Your task to perform on an android device: show emergency info Image 0: 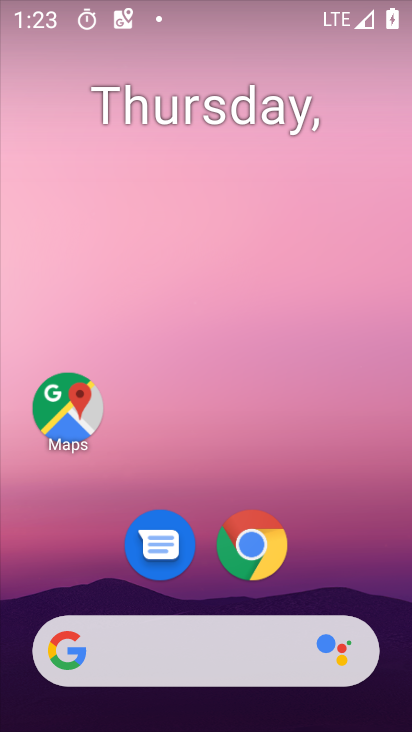
Step 0: drag from (281, 611) to (280, 76)
Your task to perform on an android device: show emergency info Image 1: 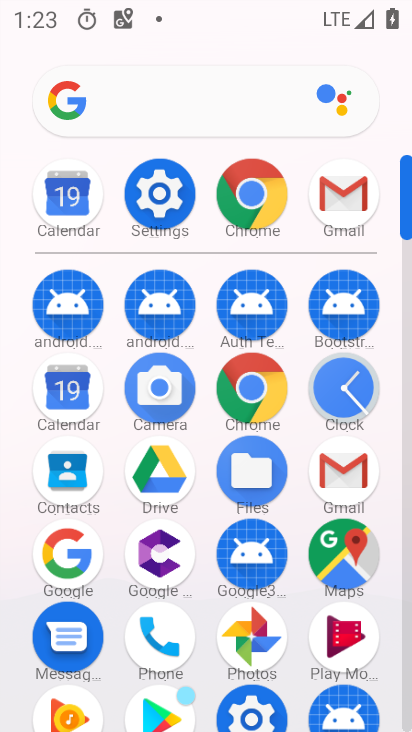
Step 1: click (182, 196)
Your task to perform on an android device: show emergency info Image 2: 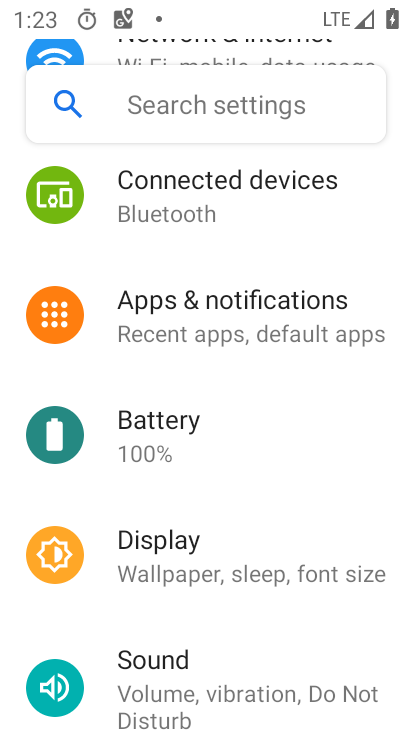
Step 2: drag from (288, 650) to (234, 158)
Your task to perform on an android device: show emergency info Image 3: 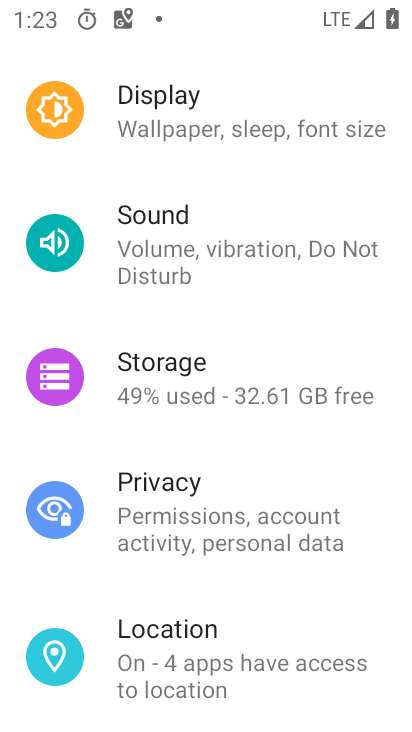
Step 3: drag from (279, 611) to (246, 270)
Your task to perform on an android device: show emergency info Image 4: 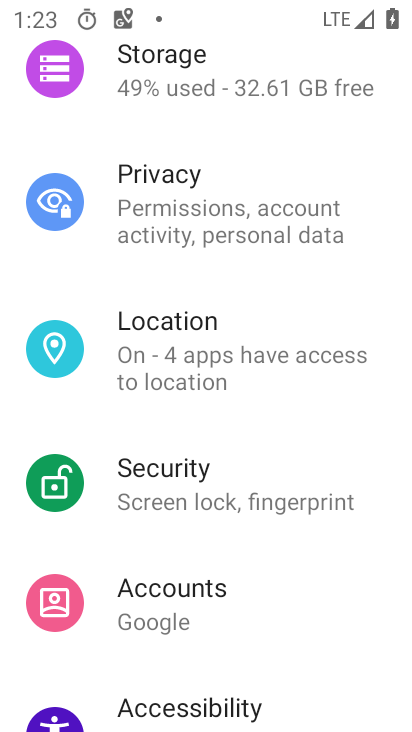
Step 4: drag from (250, 680) to (252, 330)
Your task to perform on an android device: show emergency info Image 5: 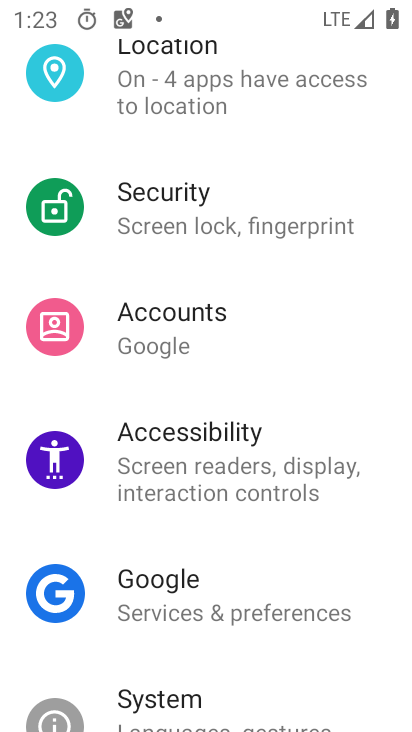
Step 5: drag from (280, 692) to (302, 169)
Your task to perform on an android device: show emergency info Image 6: 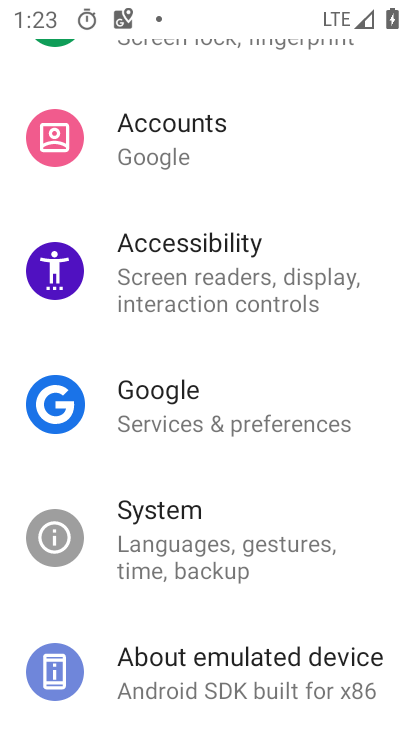
Step 6: drag from (296, 642) to (328, 192)
Your task to perform on an android device: show emergency info Image 7: 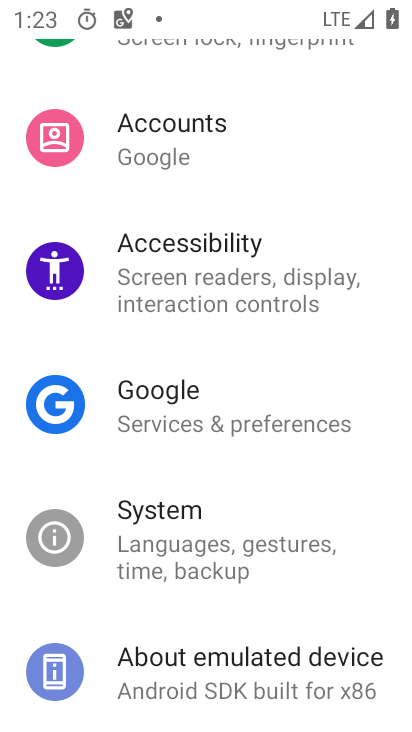
Step 7: click (303, 660)
Your task to perform on an android device: show emergency info Image 8: 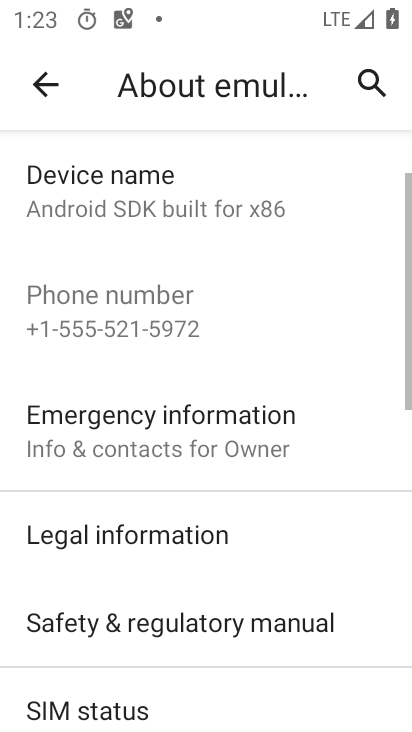
Step 8: click (240, 436)
Your task to perform on an android device: show emergency info Image 9: 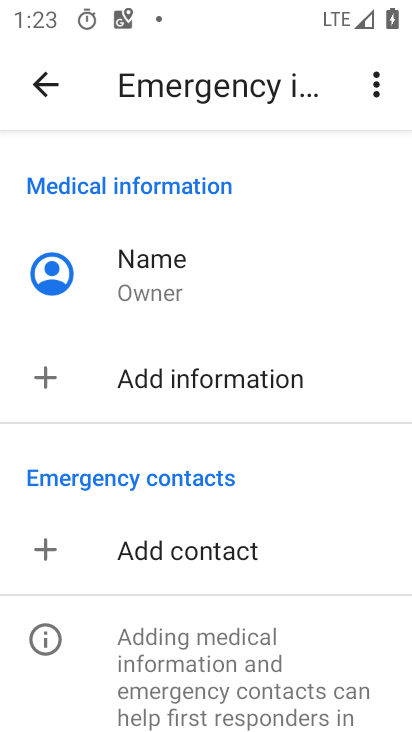
Step 9: task complete